Your task to perform on an android device: snooze an email in the gmail app Image 0: 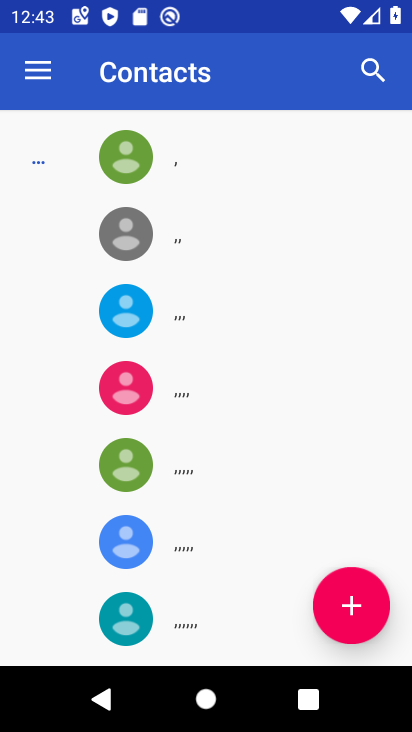
Step 0: press home button
Your task to perform on an android device: snooze an email in the gmail app Image 1: 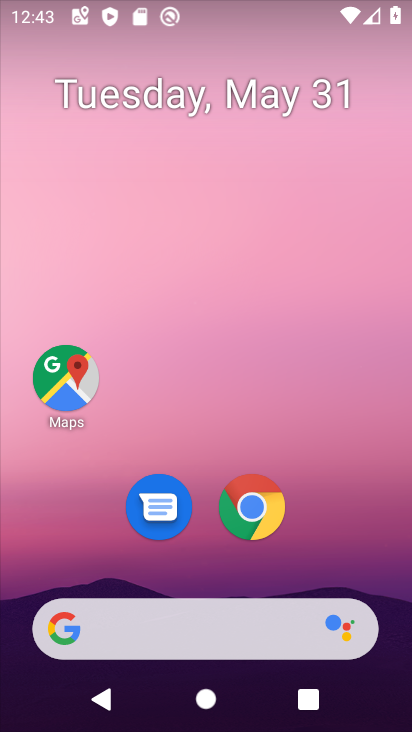
Step 1: drag from (330, 563) to (308, 98)
Your task to perform on an android device: snooze an email in the gmail app Image 2: 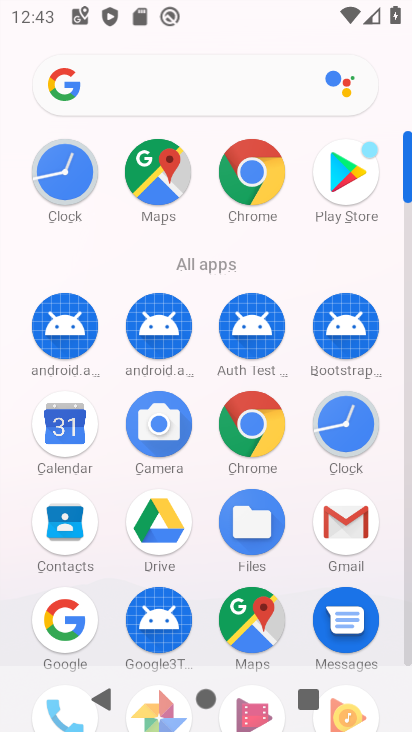
Step 2: click (341, 540)
Your task to perform on an android device: snooze an email in the gmail app Image 3: 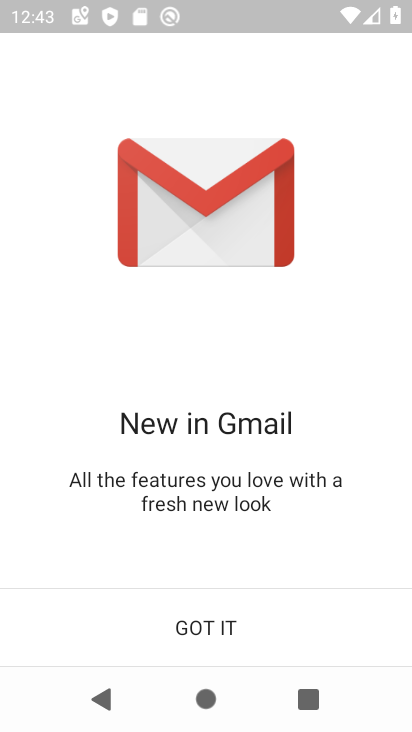
Step 3: click (226, 622)
Your task to perform on an android device: snooze an email in the gmail app Image 4: 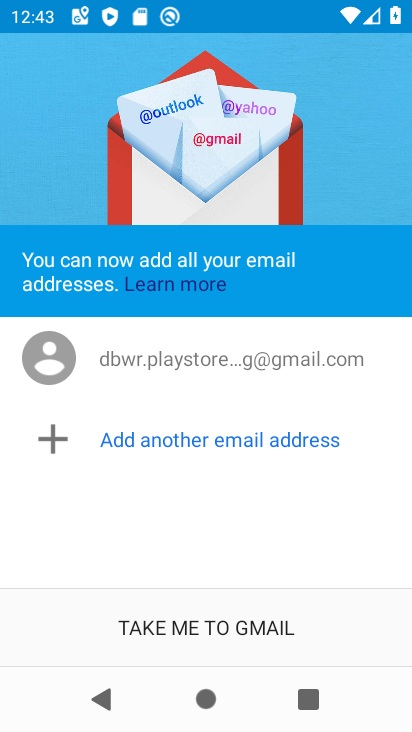
Step 4: click (214, 626)
Your task to perform on an android device: snooze an email in the gmail app Image 5: 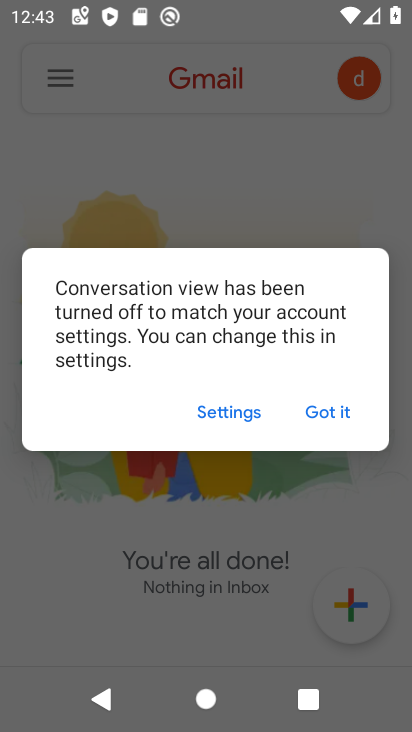
Step 5: click (330, 402)
Your task to perform on an android device: snooze an email in the gmail app Image 6: 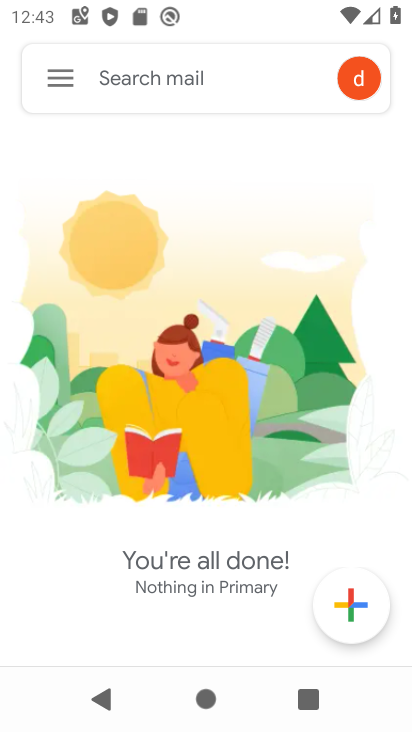
Step 6: click (42, 78)
Your task to perform on an android device: snooze an email in the gmail app Image 7: 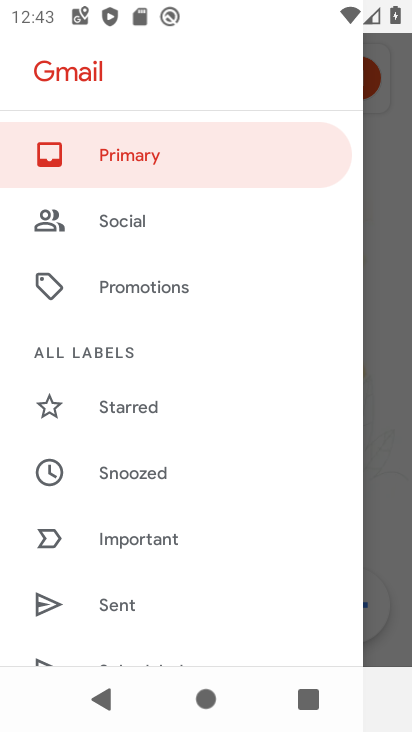
Step 7: task complete